Your task to perform on an android device: change the clock style Image 0: 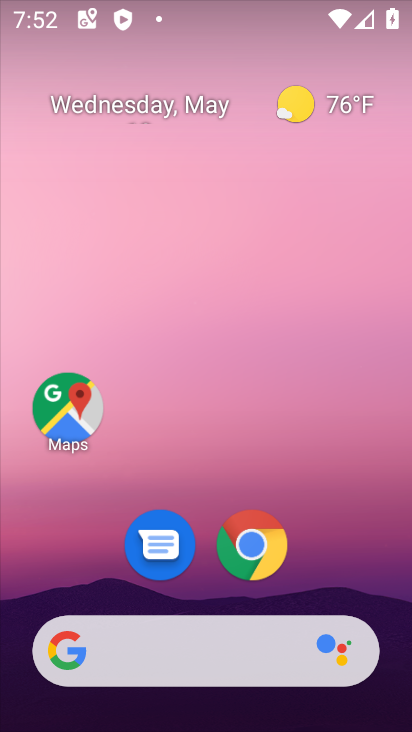
Step 0: drag from (249, 561) to (199, 184)
Your task to perform on an android device: change the clock style Image 1: 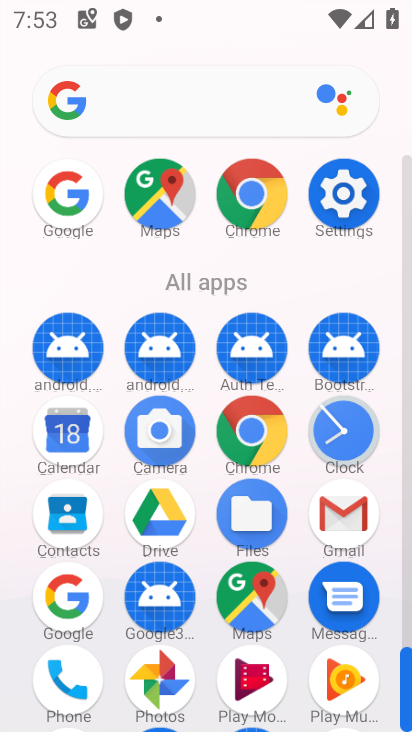
Step 1: drag from (342, 426) to (298, 449)
Your task to perform on an android device: change the clock style Image 2: 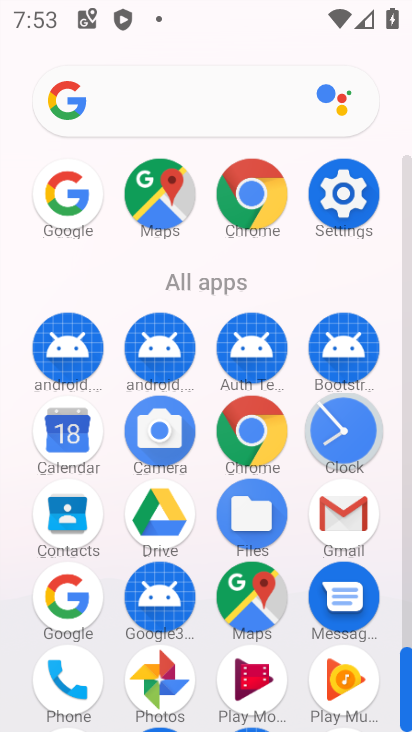
Step 2: click (325, 426)
Your task to perform on an android device: change the clock style Image 3: 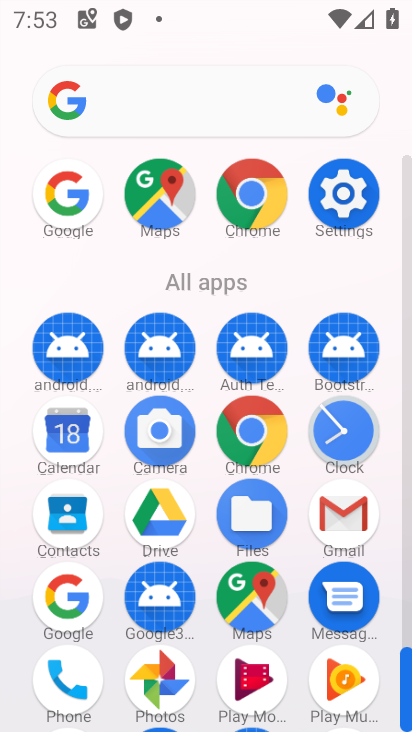
Step 3: click (325, 426)
Your task to perform on an android device: change the clock style Image 4: 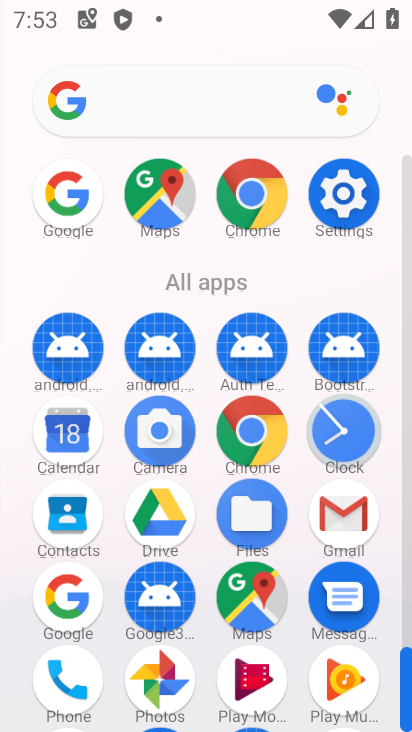
Step 4: click (327, 426)
Your task to perform on an android device: change the clock style Image 5: 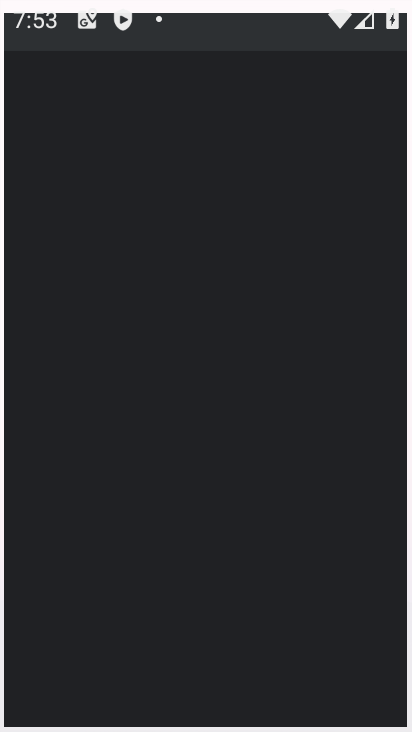
Step 5: click (328, 428)
Your task to perform on an android device: change the clock style Image 6: 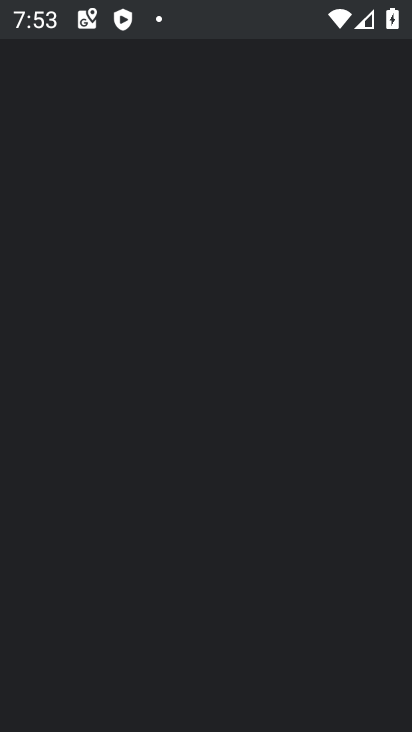
Step 6: click (328, 431)
Your task to perform on an android device: change the clock style Image 7: 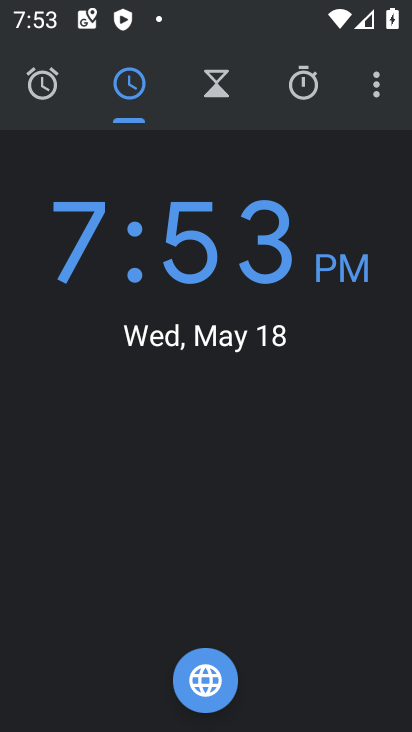
Step 7: click (377, 87)
Your task to perform on an android device: change the clock style Image 8: 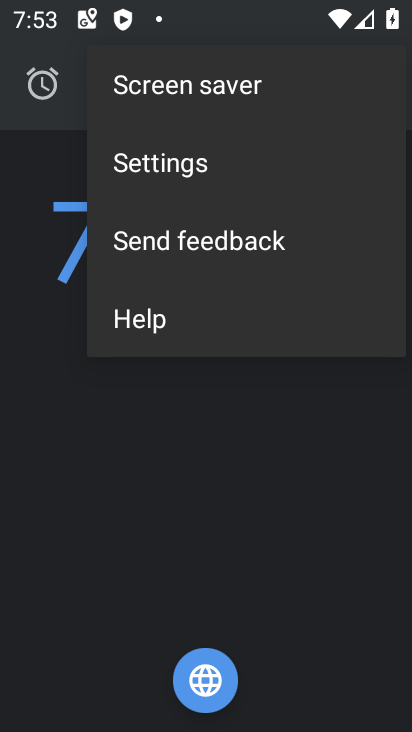
Step 8: click (169, 165)
Your task to perform on an android device: change the clock style Image 9: 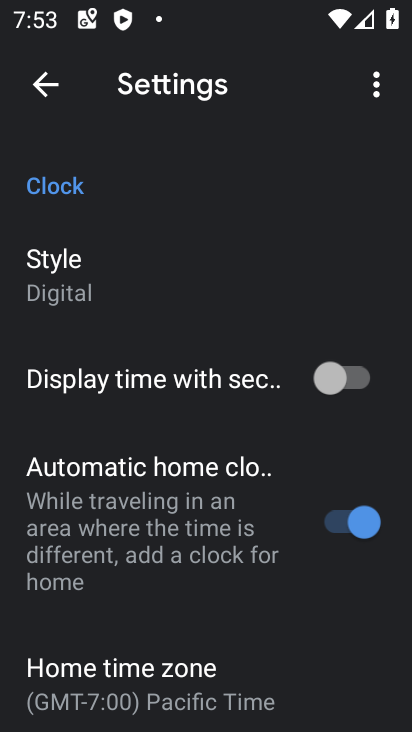
Step 9: click (328, 385)
Your task to perform on an android device: change the clock style Image 10: 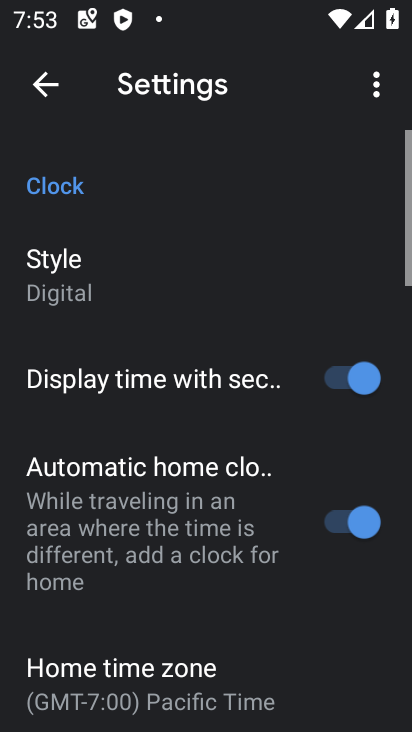
Step 10: click (357, 384)
Your task to perform on an android device: change the clock style Image 11: 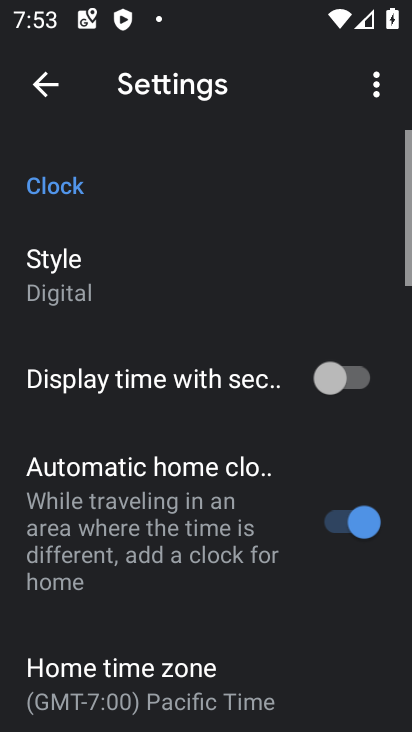
Step 11: click (101, 276)
Your task to perform on an android device: change the clock style Image 12: 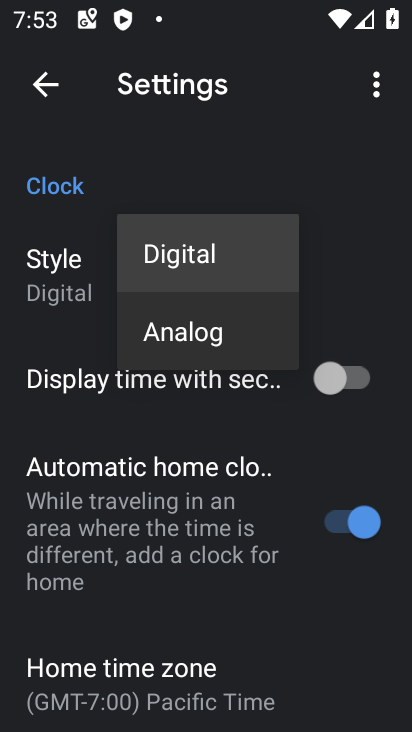
Step 12: click (175, 338)
Your task to perform on an android device: change the clock style Image 13: 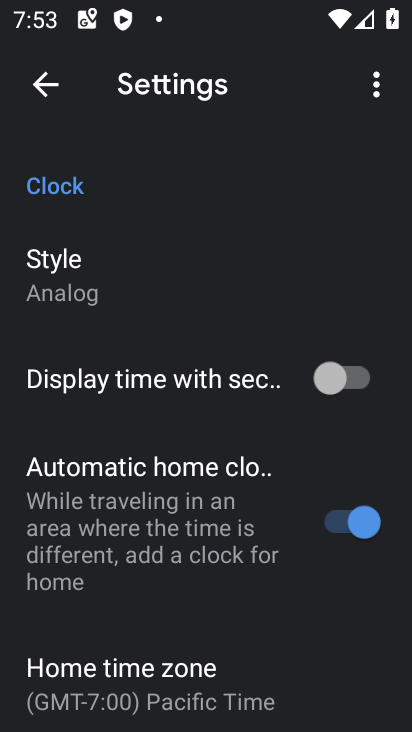
Step 13: task complete